Your task to perform on an android device: empty trash in the gmail app Image 0: 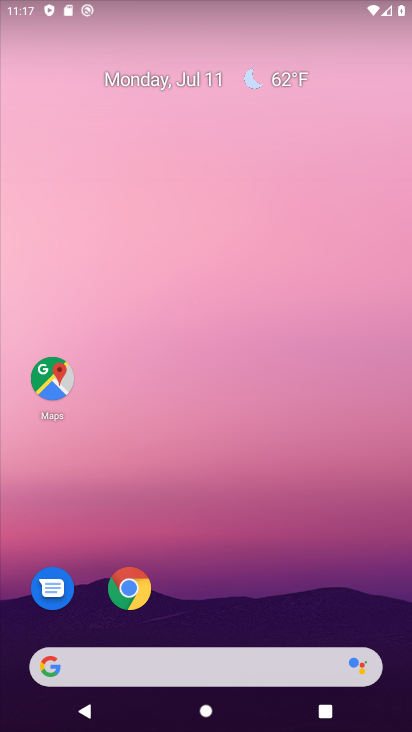
Step 0: drag from (150, 180) to (170, 32)
Your task to perform on an android device: empty trash in the gmail app Image 1: 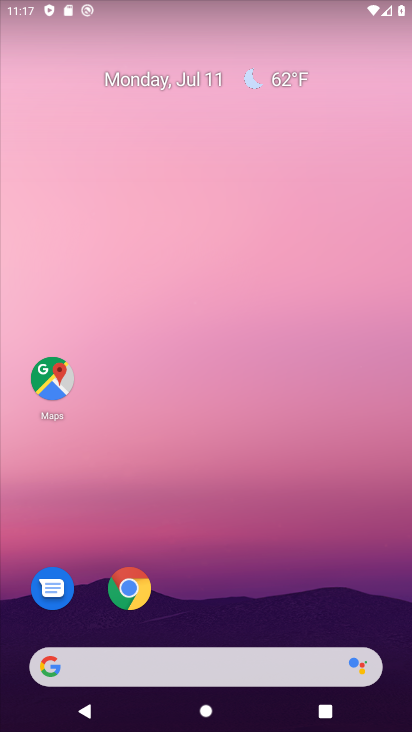
Step 1: drag from (166, 496) to (166, 88)
Your task to perform on an android device: empty trash in the gmail app Image 2: 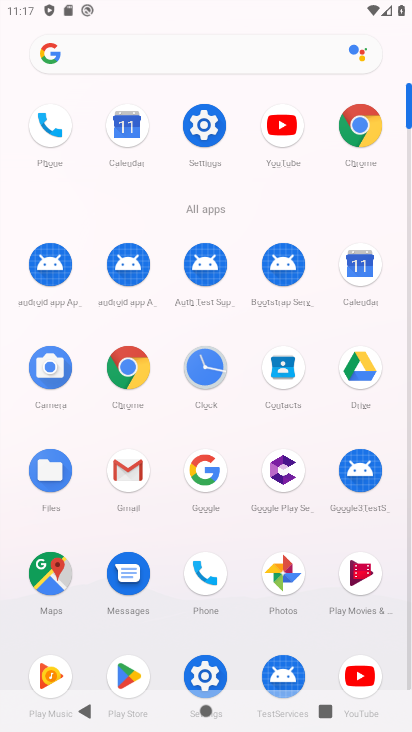
Step 2: click (128, 485)
Your task to perform on an android device: empty trash in the gmail app Image 3: 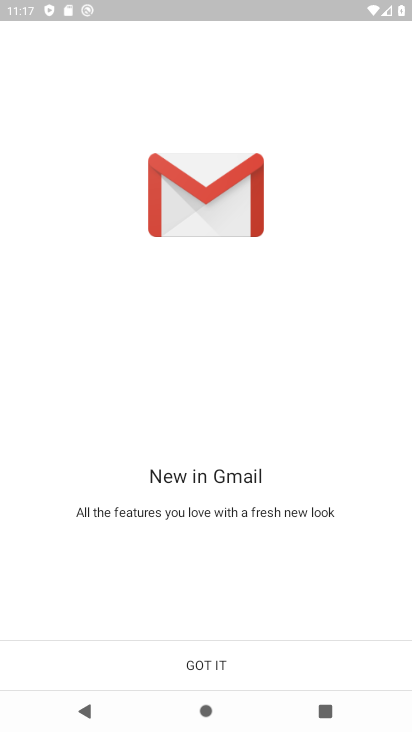
Step 3: click (233, 677)
Your task to perform on an android device: empty trash in the gmail app Image 4: 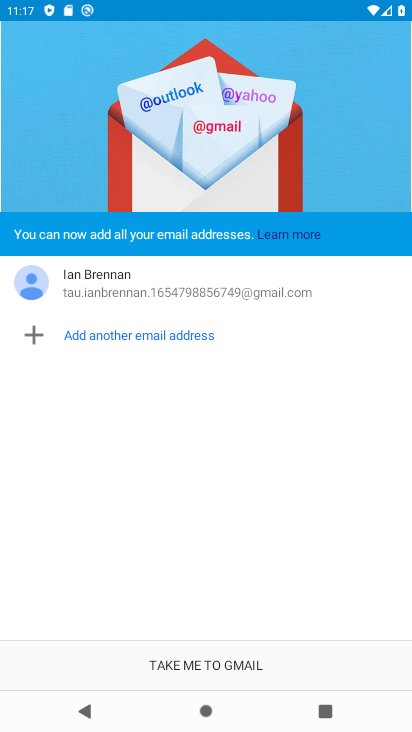
Step 4: click (223, 660)
Your task to perform on an android device: empty trash in the gmail app Image 5: 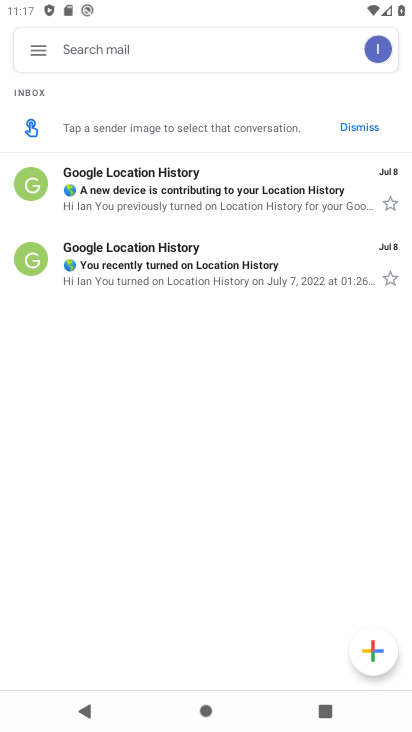
Step 5: click (33, 49)
Your task to perform on an android device: empty trash in the gmail app Image 6: 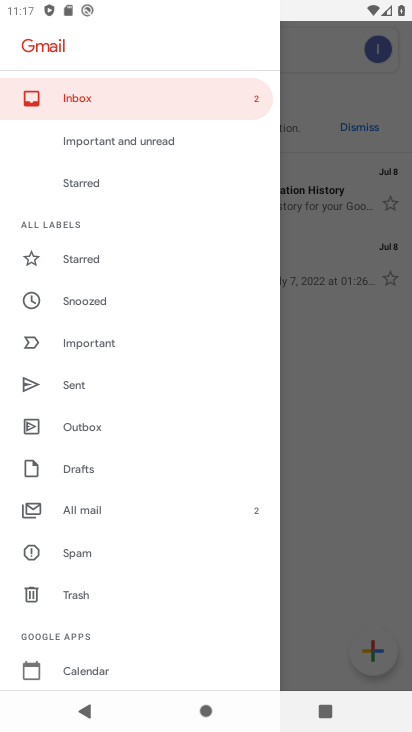
Step 6: click (79, 595)
Your task to perform on an android device: empty trash in the gmail app Image 7: 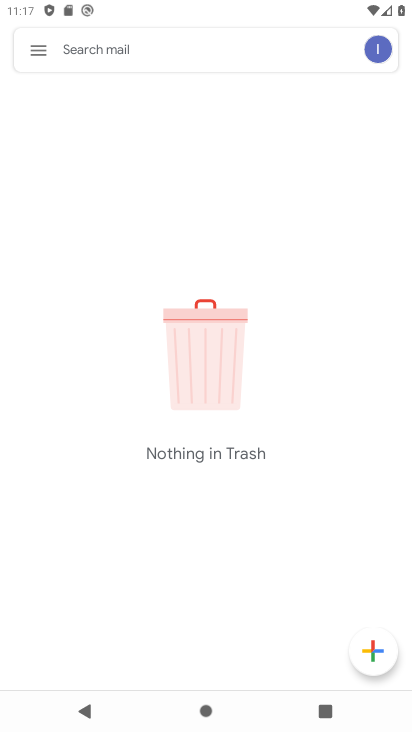
Step 7: task complete